Your task to perform on an android device: Open the stopwatch Image 0: 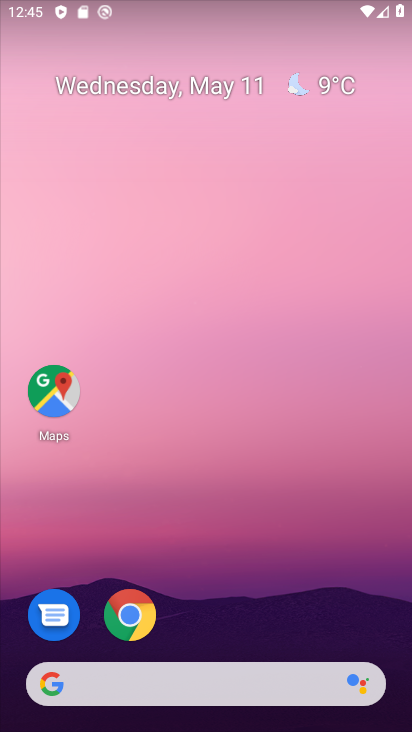
Step 0: drag from (252, 647) to (264, 8)
Your task to perform on an android device: Open the stopwatch Image 1: 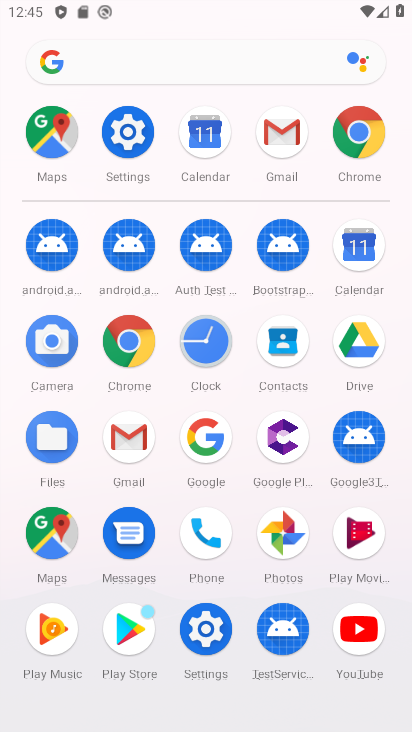
Step 1: click (194, 341)
Your task to perform on an android device: Open the stopwatch Image 2: 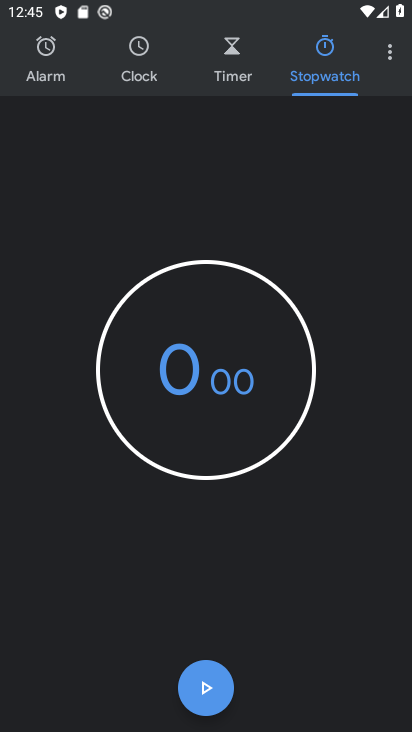
Step 2: task complete